Your task to perform on an android device: open the mobile data screen to see how much data has been used Image 0: 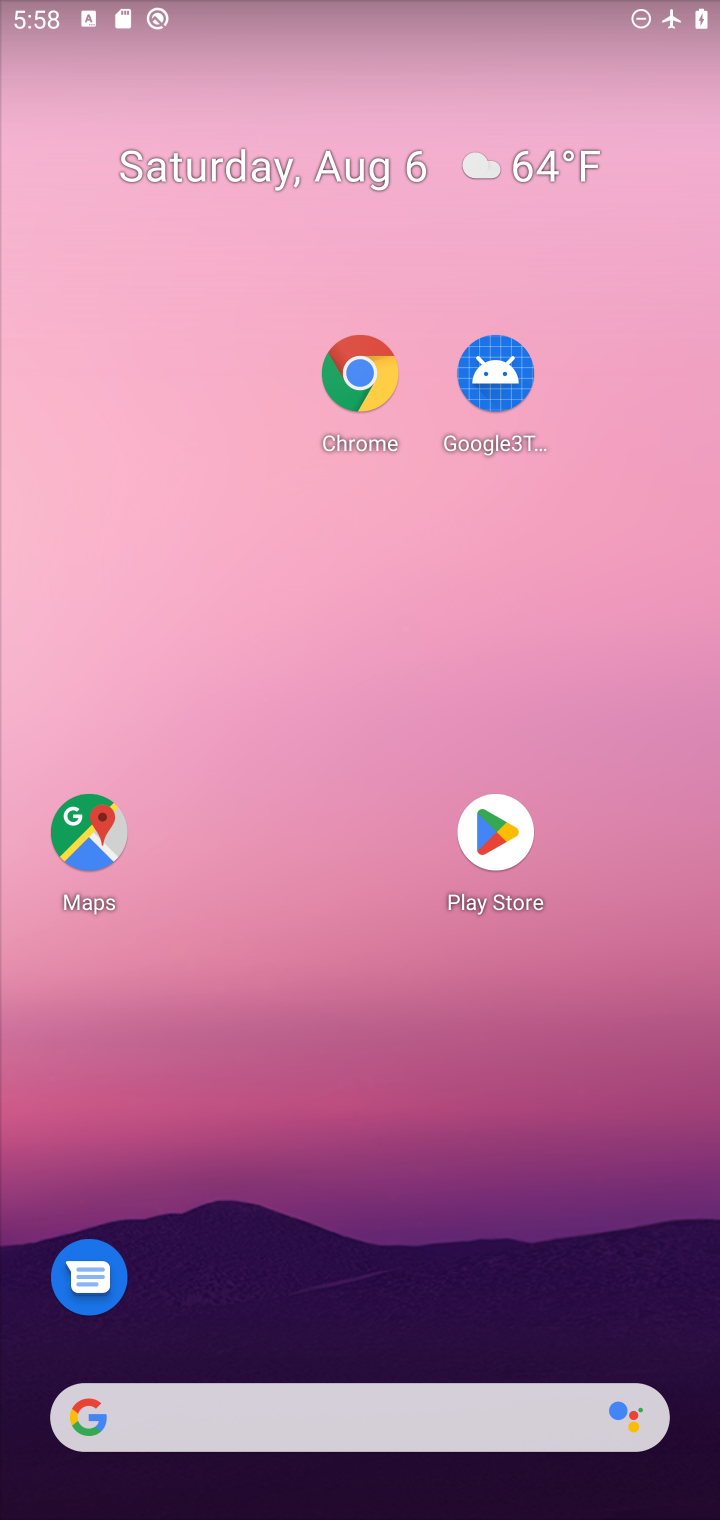
Step 0: drag from (354, 1415) to (176, 529)
Your task to perform on an android device: open the mobile data screen to see how much data has been used Image 1: 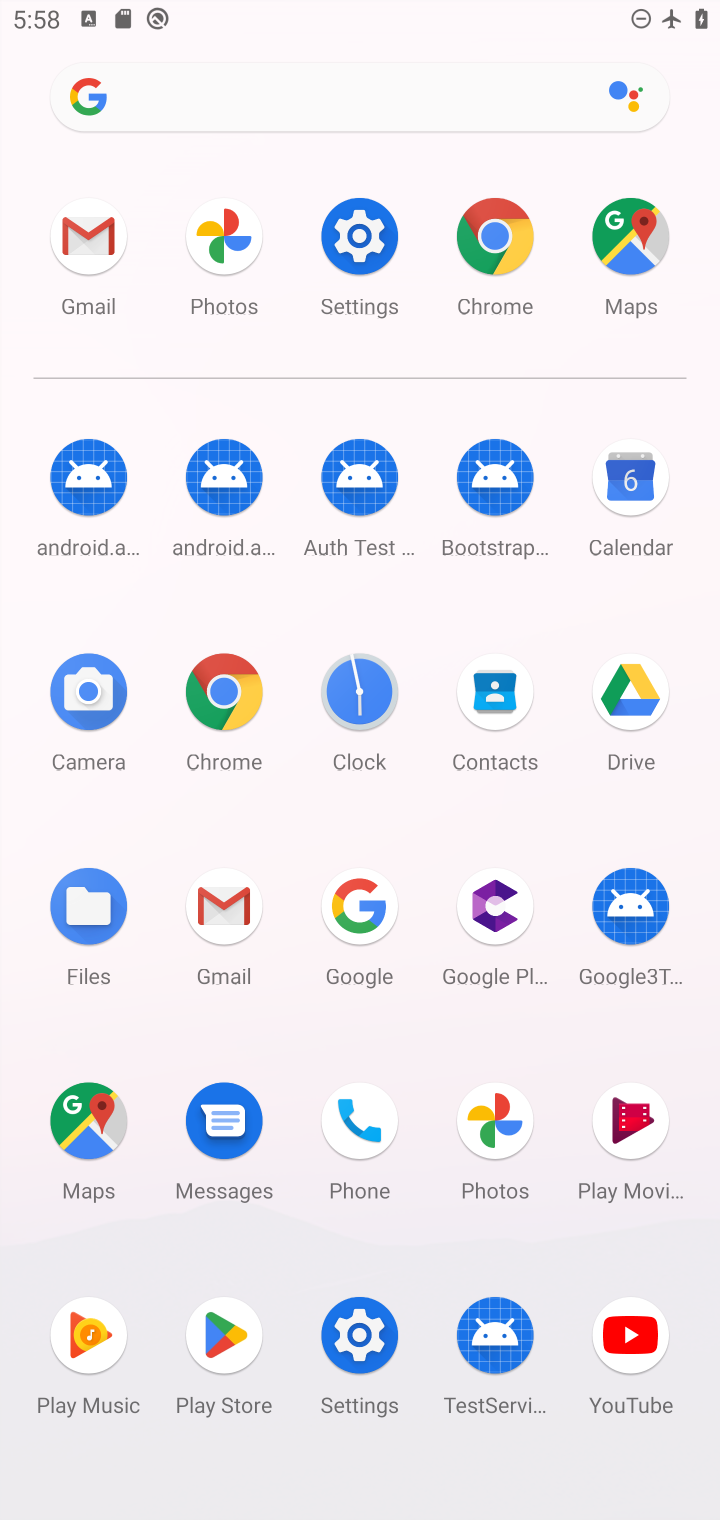
Step 1: click (364, 236)
Your task to perform on an android device: open the mobile data screen to see how much data has been used Image 2: 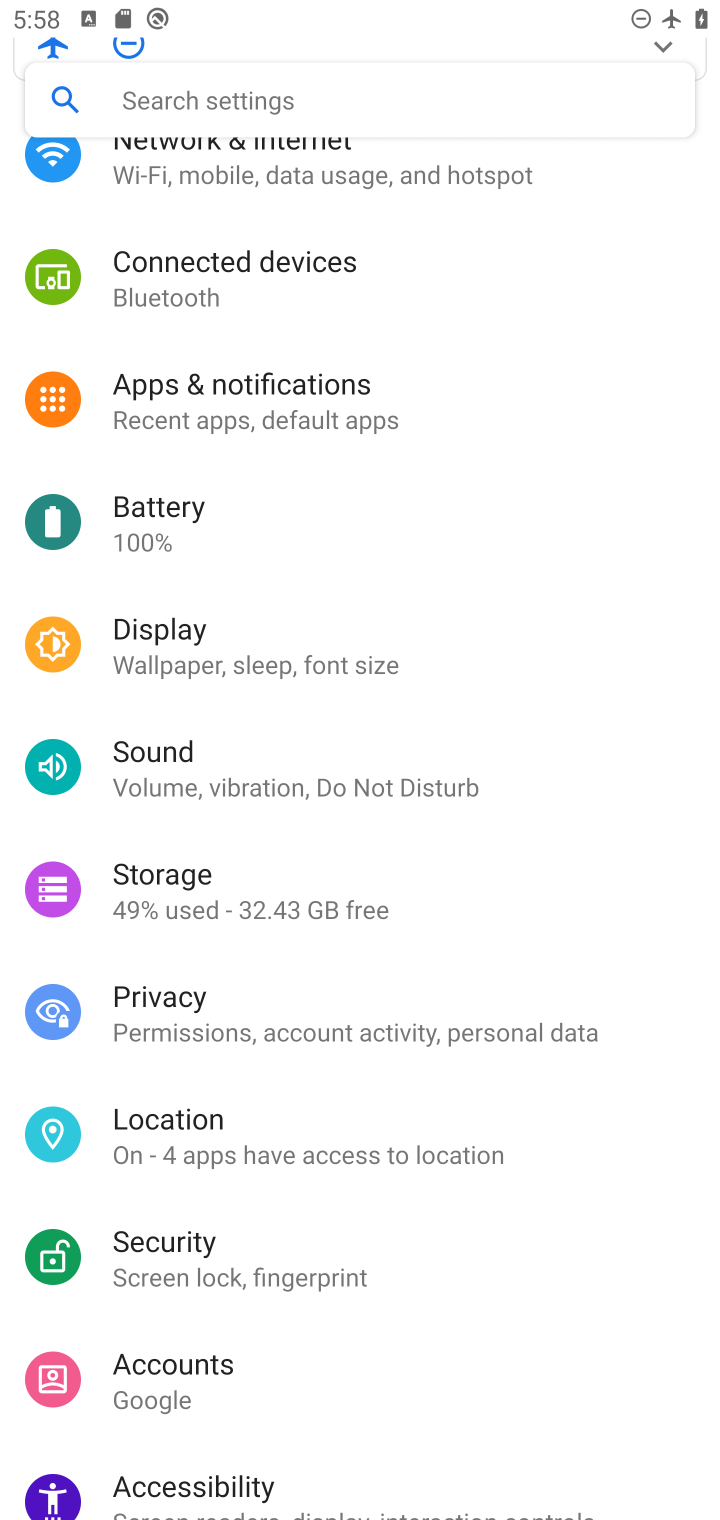
Step 2: drag from (534, 331) to (421, 859)
Your task to perform on an android device: open the mobile data screen to see how much data has been used Image 3: 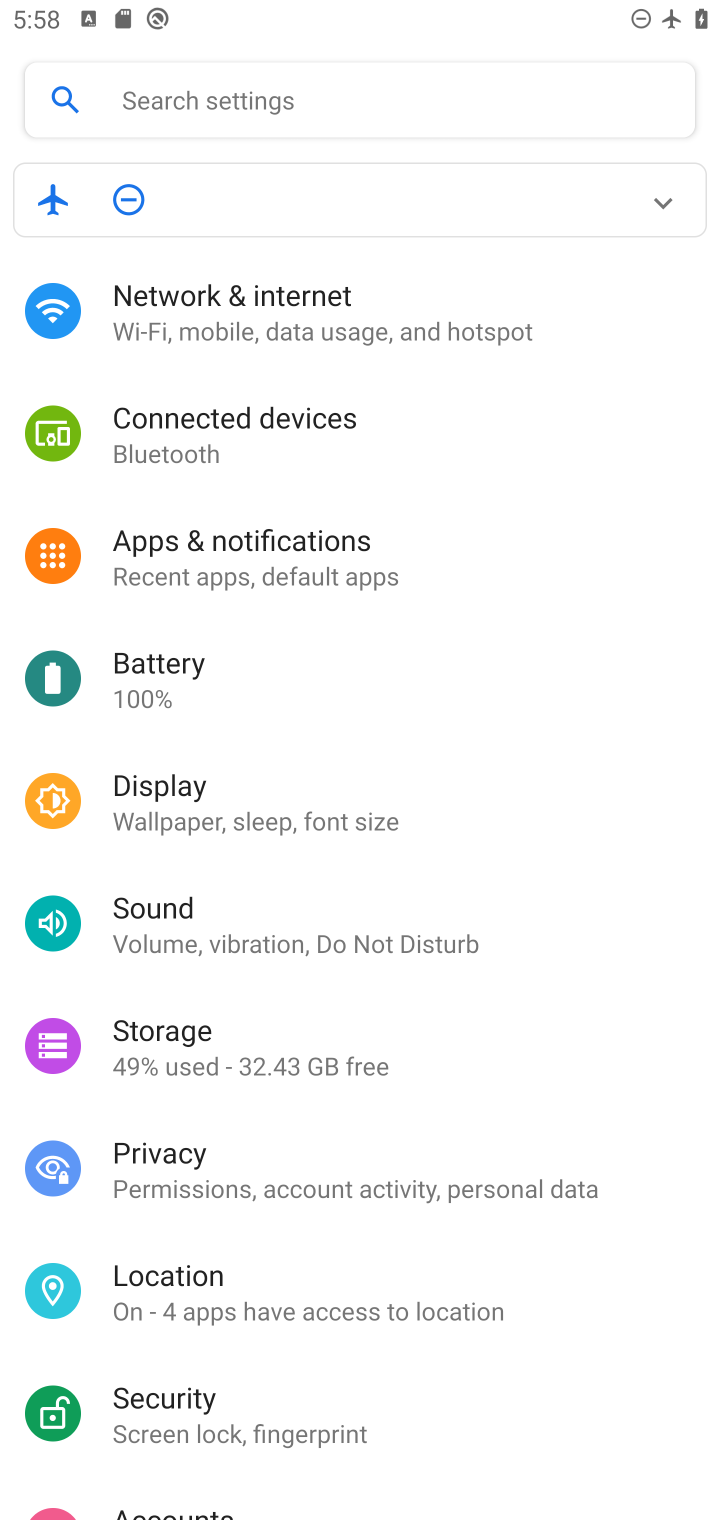
Step 3: click (321, 295)
Your task to perform on an android device: open the mobile data screen to see how much data has been used Image 4: 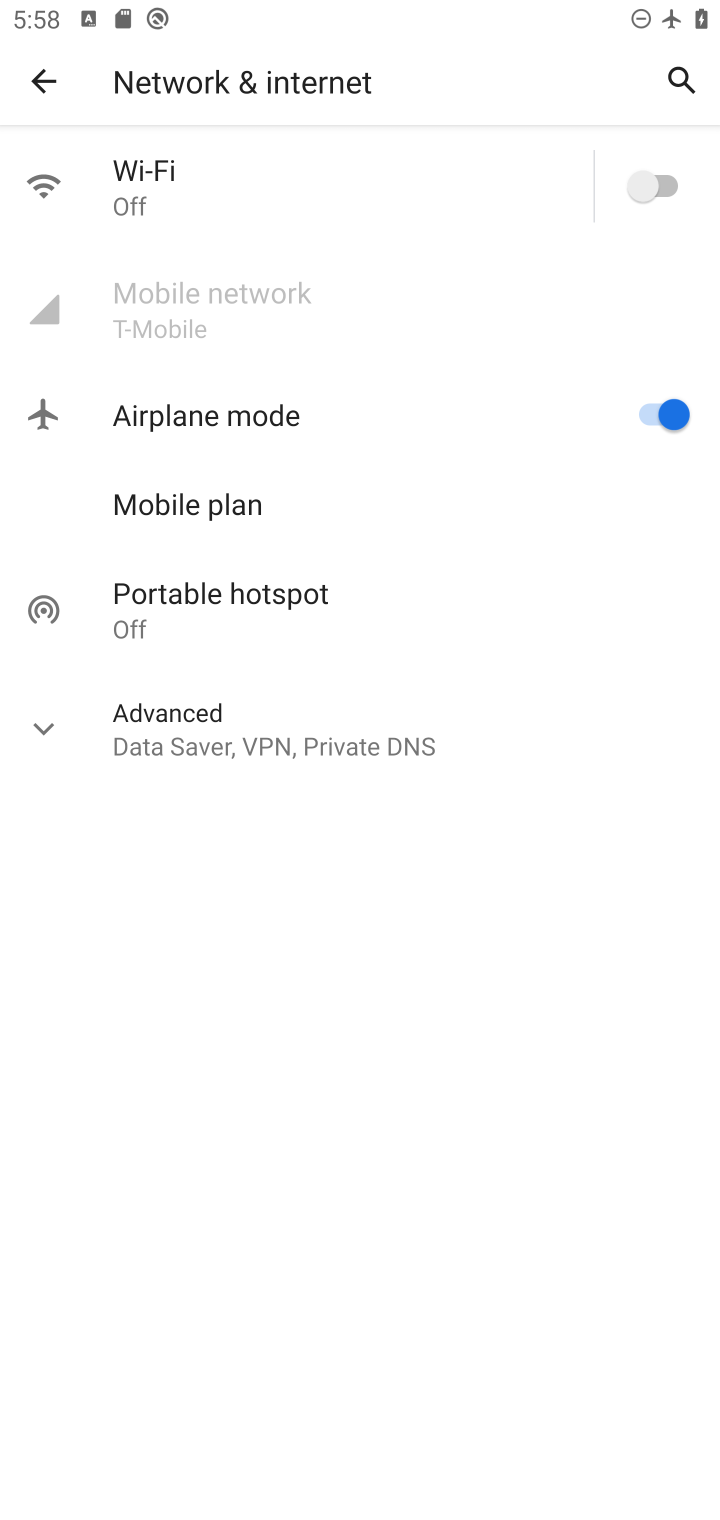
Step 4: task complete